Your task to perform on an android device: Search for vegetarian restaurants on Maps Image 0: 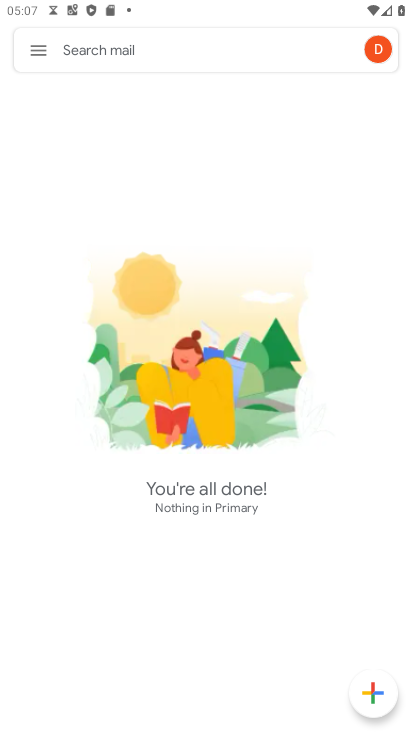
Step 0: press home button
Your task to perform on an android device: Search for vegetarian restaurants on Maps Image 1: 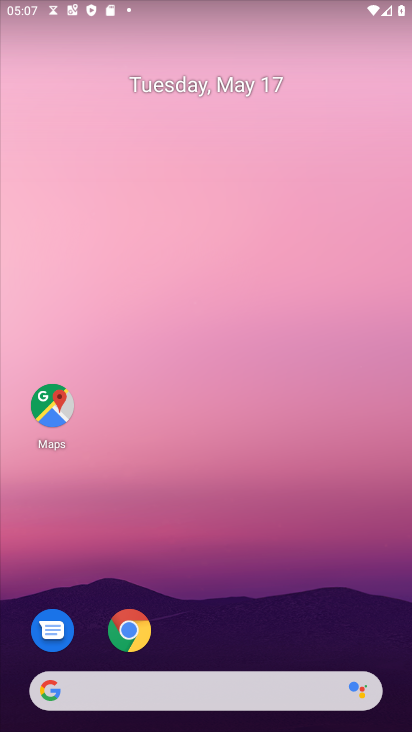
Step 1: click (62, 411)
Your task to perform on an android device: Search for vegetarian restaurants on Maps Image 2: 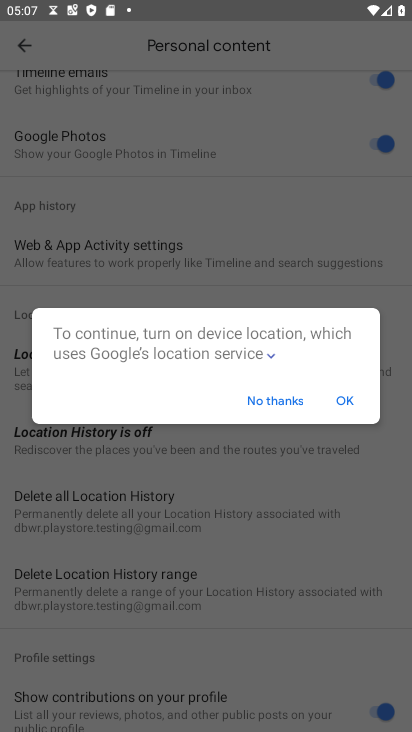
Step 2: click (346, 407)
Your task to perform on an android device: Search for vegetarian restaurants on Maps Image 3: 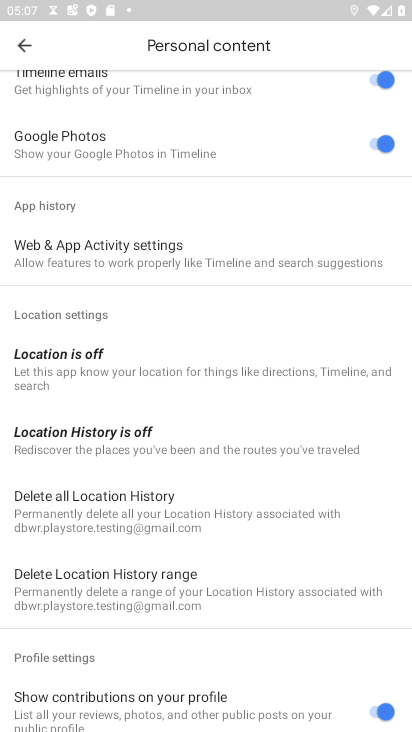
Step 3: click (32, 49)
Your task to perform on an android device: Search for vegetarian restaurants on Maps Image 4: 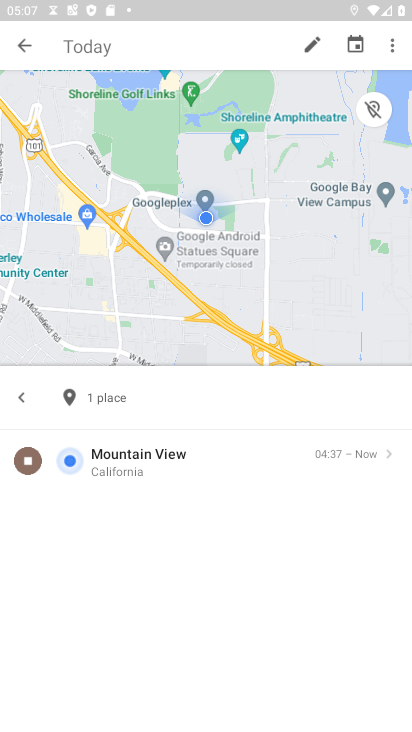
Step 4: click (16, 42)
Your task to perform on an android device: Search for vegetarian restaurants on Maps Image 5: 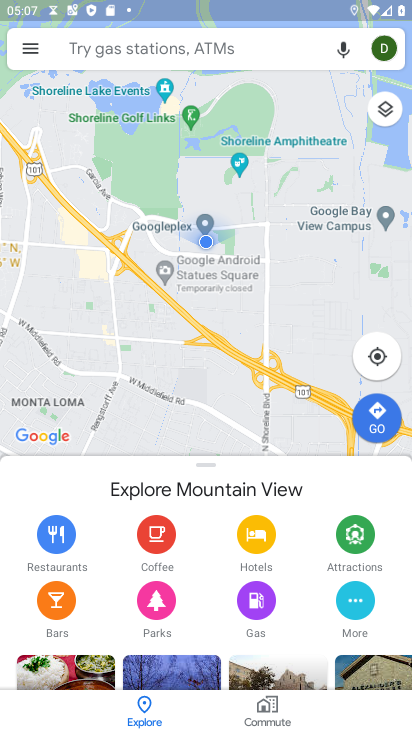
Step 5: click (91, 45)
Your task to perform on an android device: Search for vegetarian restaurants on Maps Image 6: 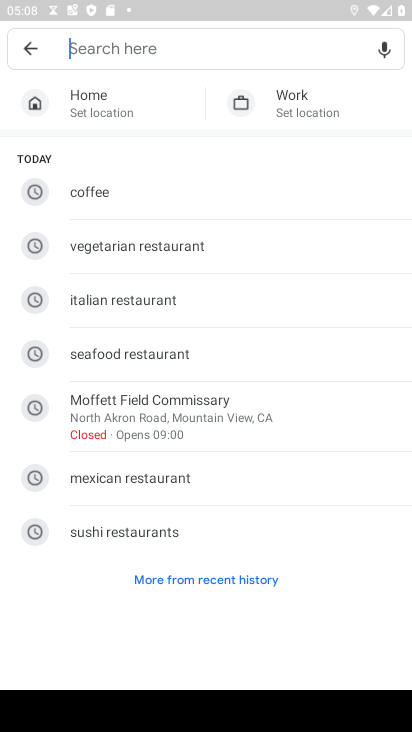
Step 6: type "r vegetarian restaurants"
Your task to perform on an android device: Search for vegetarian restaurants on Maps Image 7: 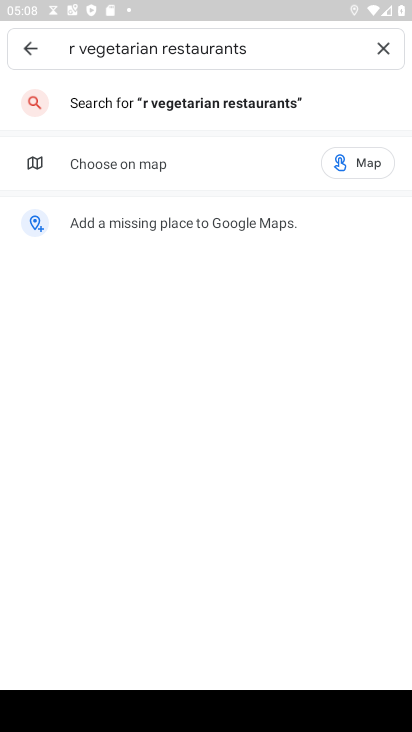
Step 7: click (191, 103)
Your task to perform on an android device: Search for vegetarian restaurants on Maps Image 8: 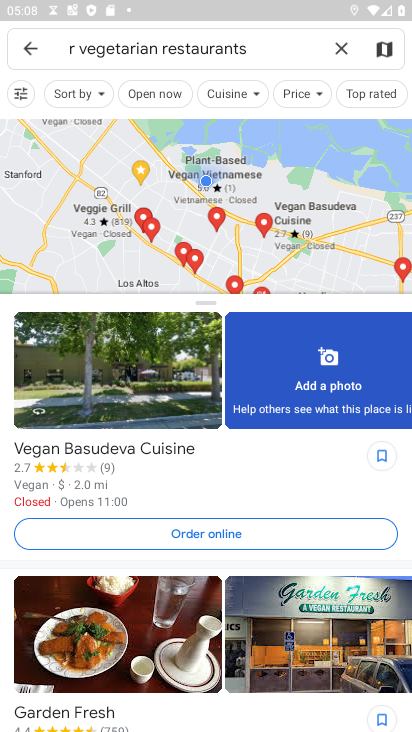
Step 8: task complete